Your task to perform on an android device: Do I have any events this weekend? Image 0: 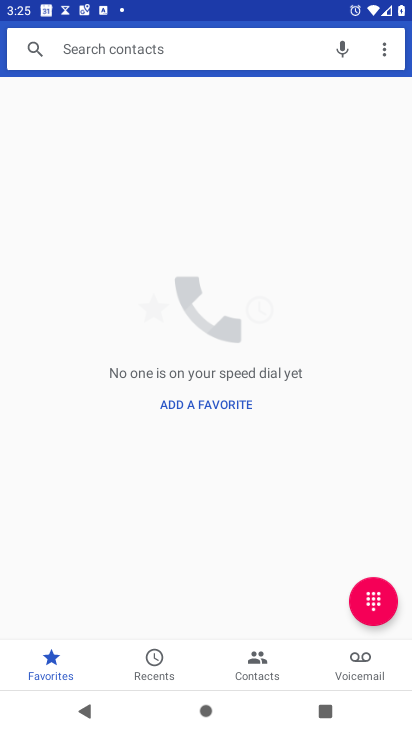
Step 0: press home button
Your task to perform on an android device: Do I have any events this weekend? Image 1: 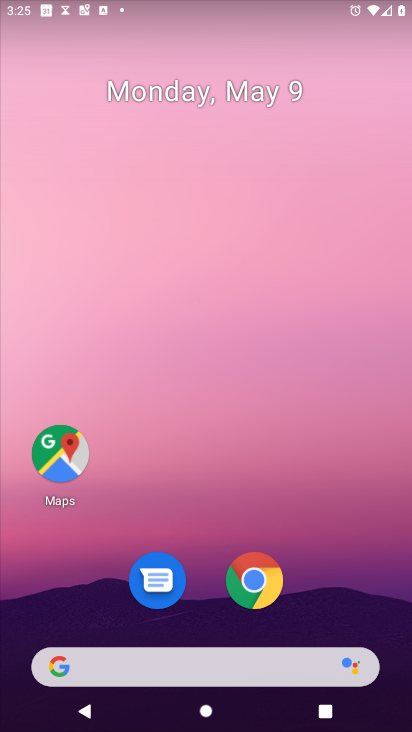
Step 1: drag from (298, 475) to (256, 142)
Your task to perform on an android device: Do I have any events this weekend? Image 2: 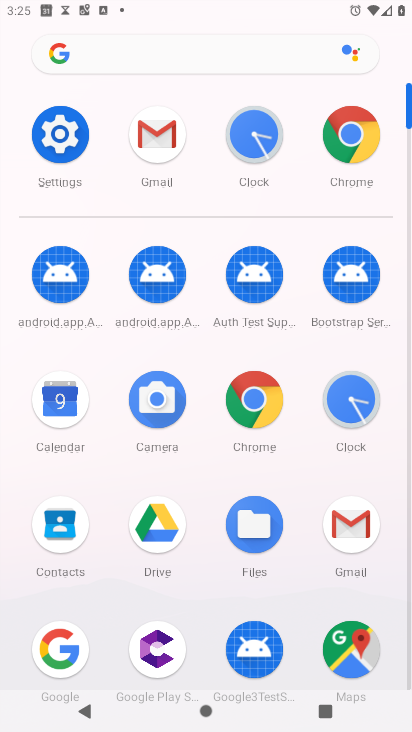
Step 2: click (50, 416)
Your task to perform on an android device: Do I have any events this weekend? Image 3: 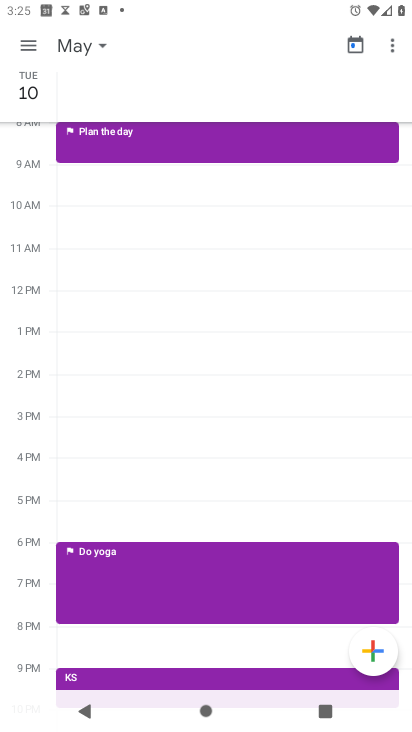
Step 3: click (26, 49)
Your task to perform on an android device: Do I have any events this weekend? Image 4: 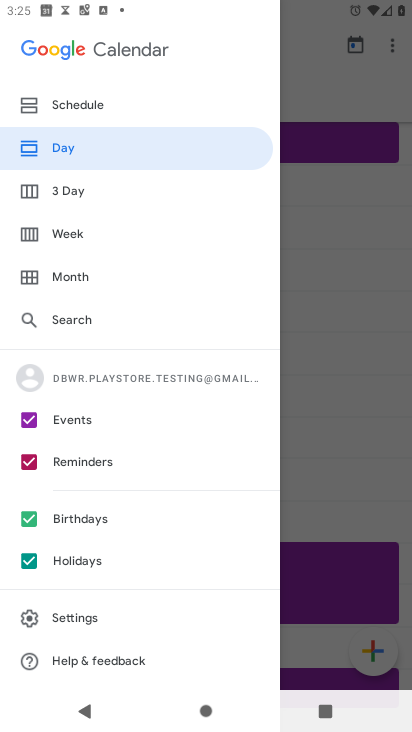
Step 4: click (105, 228)
Your task to perform on an android device: Do I have any events this weekend? Image 5: 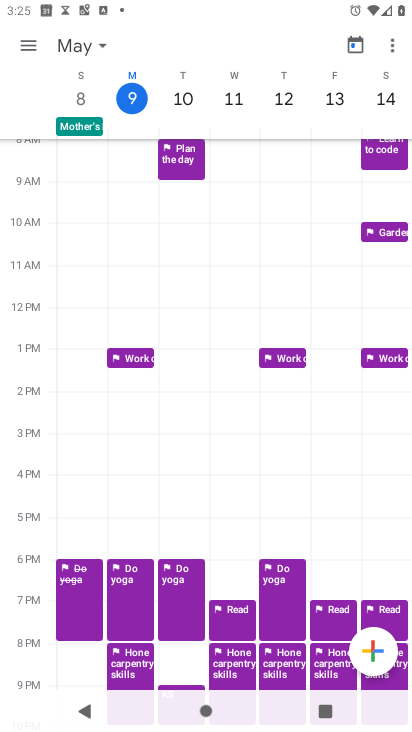
Step 5: task complete